Your task to perform on an android device: change alarm snooze length Image 0: 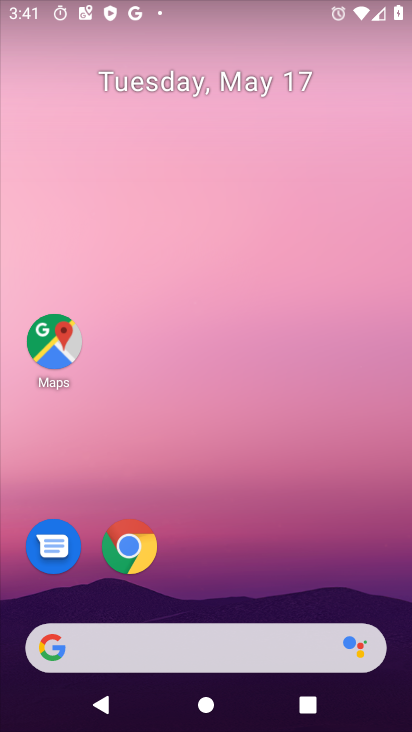
Step 0: drag from (401, 656) to (367, 375)
Your task to perform on an android device: change alarm snooze length Image 1: 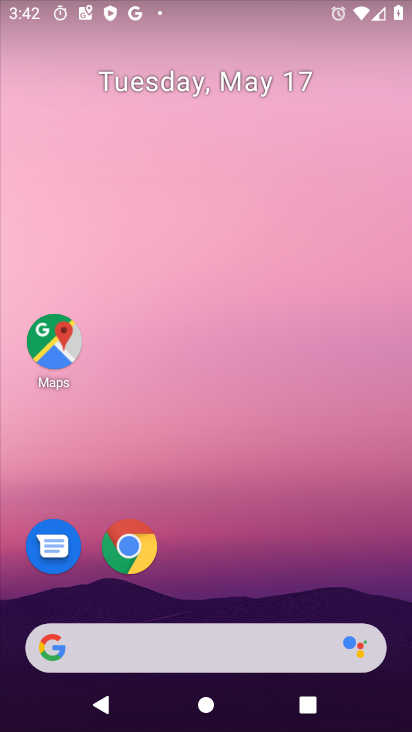
Step 1: drag from (389, 594) to (317, 277)
Your task to perform on an android device: change alarm snooze length Image 2: 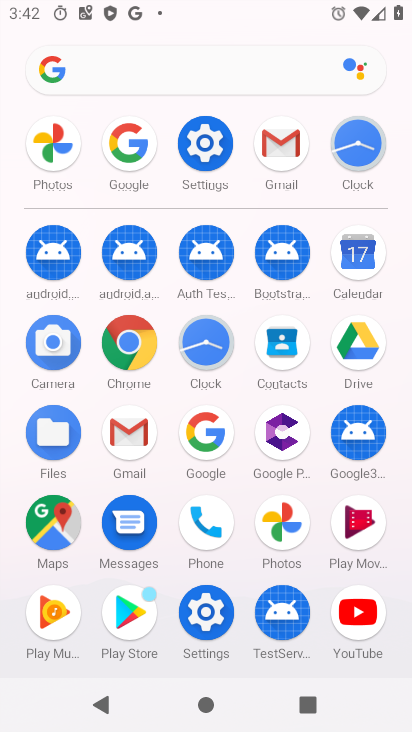
Step 2: click (217, 345)
Your task to perform on an android device: change alarm snooze length Image 3: 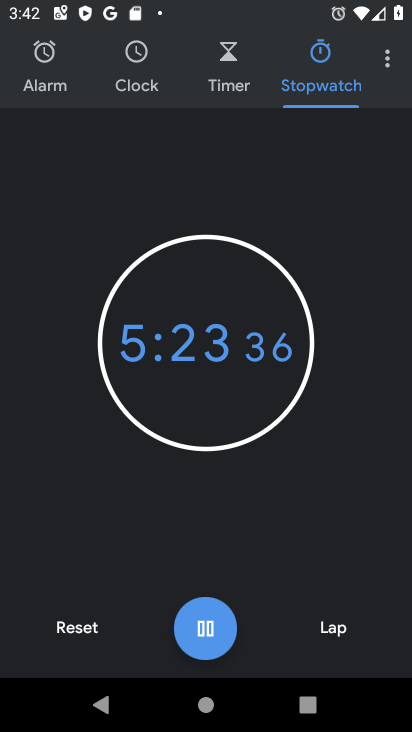
Step 3: click (385, 59)
Your task to perform on an android device: change alarm snooze length Image 4: 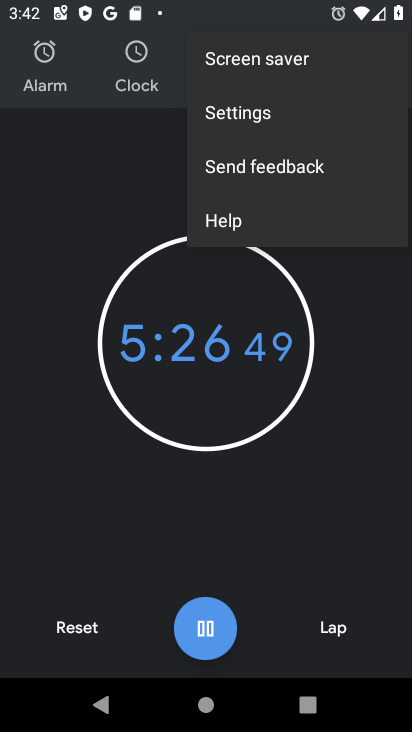
Step 4: click (235, 115)
Your task to perform on an android device: change alarm snooze length Image 5: 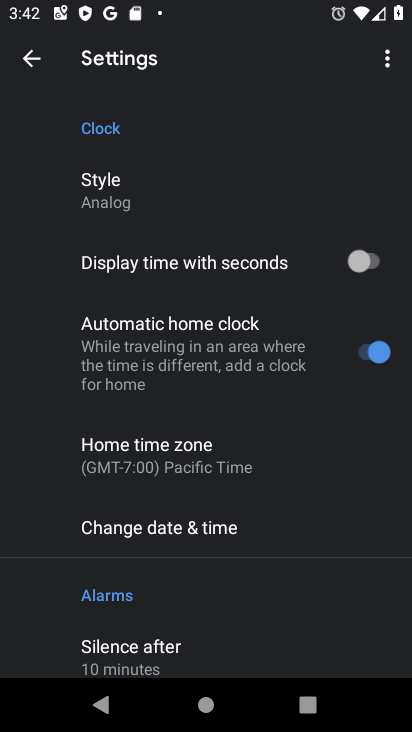
Step 5: drag from (297, 607) to (249, 299)
Your task to perform on an android device: change alarm snooze length Image 6: 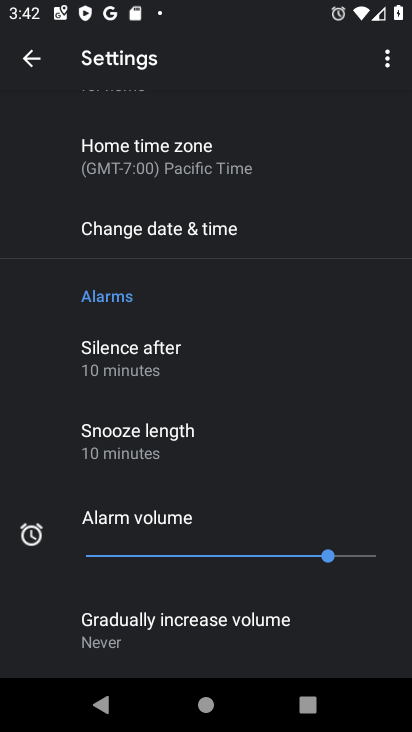
Step 6: drag from (266, 621) to (265, 358)
Your task to perform on an android device: change alarm snooze length Image 7: 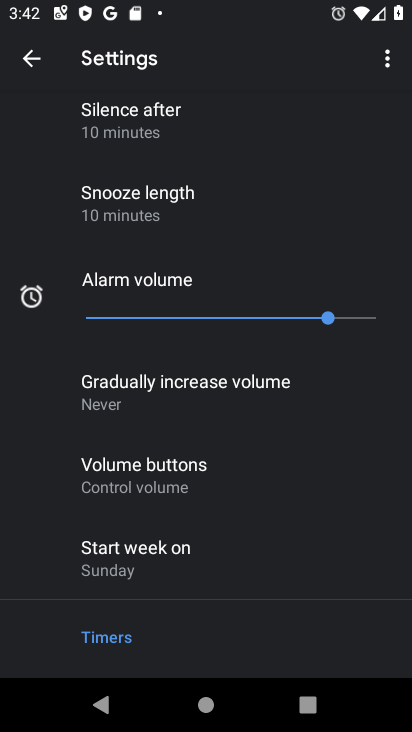
Step 7: click (136, 207)
Your task to perform on an android device: change alarm snooze length Image 8: 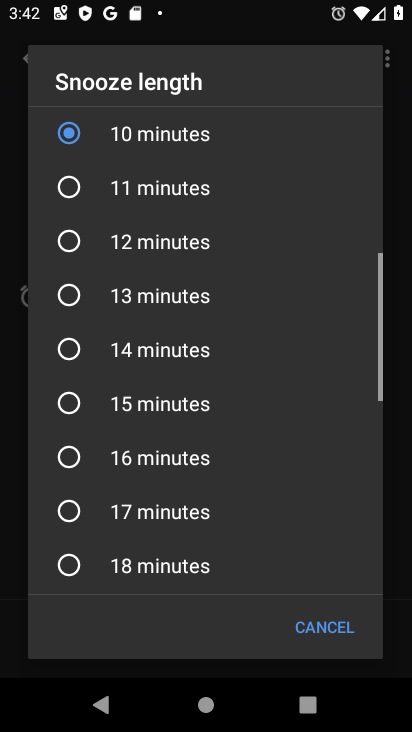
Step 8: click (73, 188)
Your task to perform on an android device: change alarm snooze length Image 9: 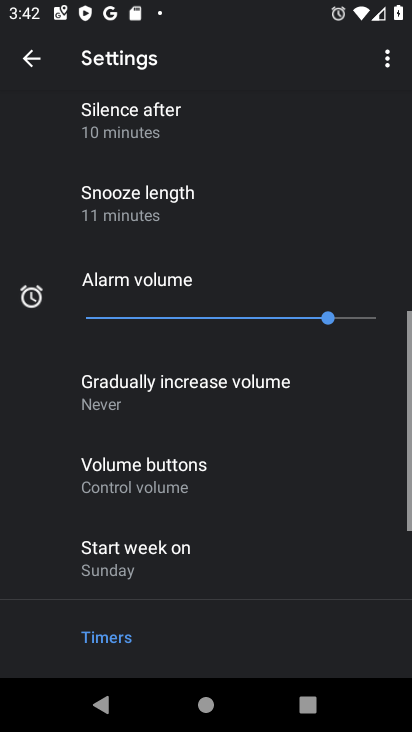
Step 9: task complete